Your task to perform on an android device: What's the news in theFalkland Islands? Image 0: 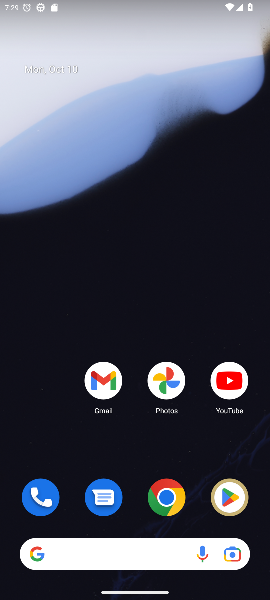
Step 0: drag from (92, 453) to (98, 186)
Your task to perform on an android device: What's the news in theFalkland Islands? Image 1: 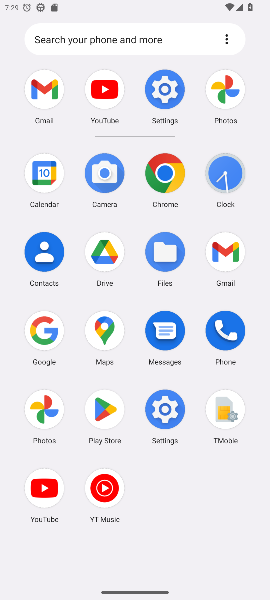
Step 1: click (46, 328)
Your task to perform on an android device: What's the news in theFalkland Islands? Image 2: 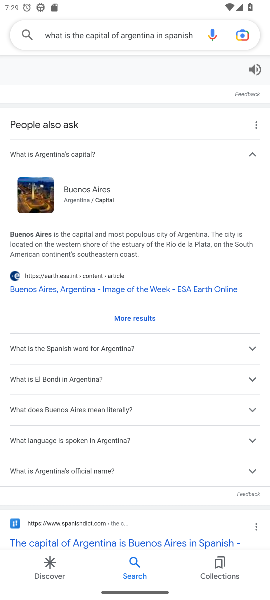
Step 2: click (116, 29)
Your task to perform on an android device: What's the news in theFalkland Islands? Image 3: 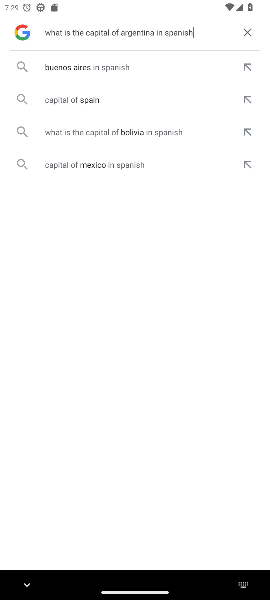
Step 3: click (250, 25)
Your task to perform on an android device: What's the news in theFalkland Islands? Image 4: 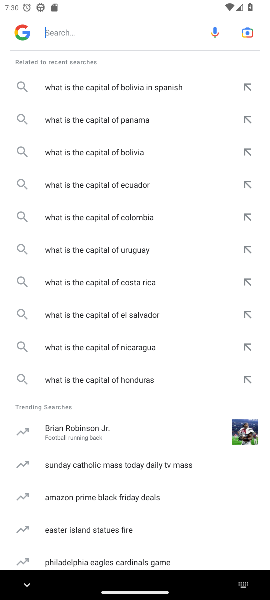
Step 4: click (88, 32)
Your task to perform on an android device: What's the news in theFalkland Islands? Image 5: 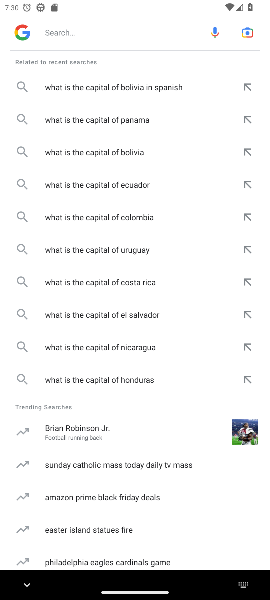
Step 5: type "What's the news in theFalkland Islands? "
Your task to perform on an android device: What's the news in theFalkland Islands? Image 6: 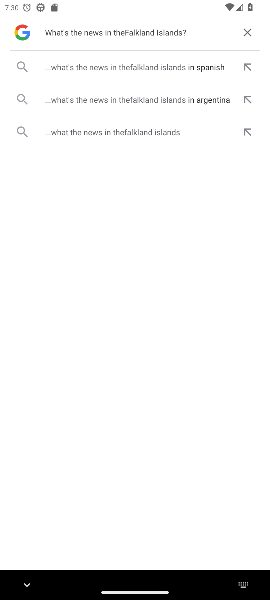
Step 6: click (57, 71)
Your task to perform on an android device: What's the news in theFalkland Islands? Image 7: 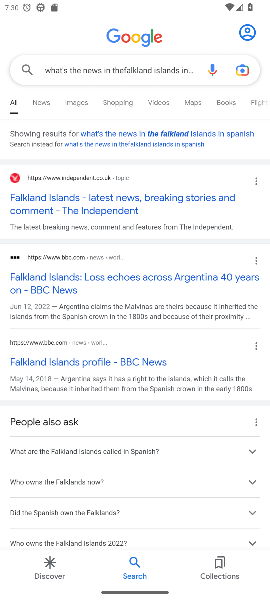
Step 7: click (50, 198)
Your task to perform on an android device: What's the news in theFalkland Islands? Image 8: 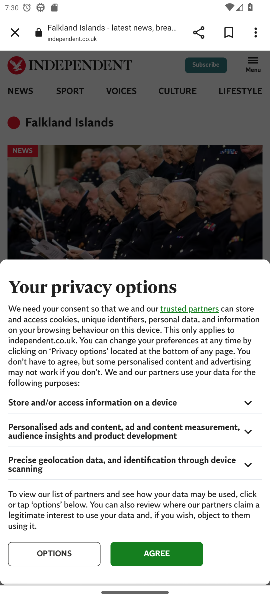
Step 8: click (116, 548)
Your task to perform on an android device: What's the news in theFalkland Islands? Image 9: 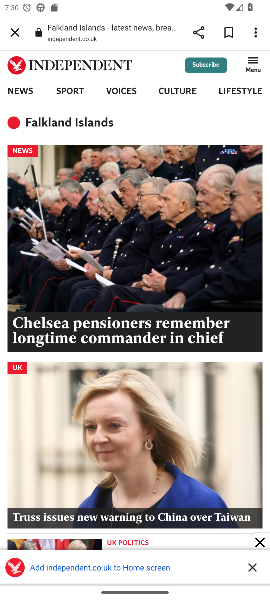
Step 9: click (128, 502)
Your task to perform on an android device: What's the news in theFalkland Islands? Image 10: 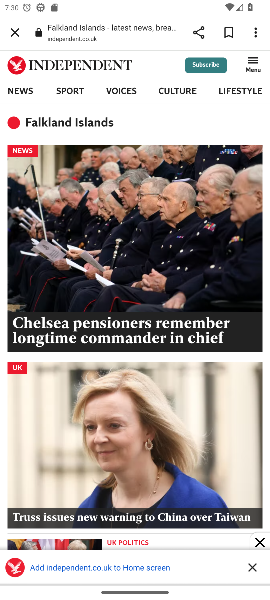
Step 10: drag from (129, 444) to (141, 231)
Your task to perform on an android device: What's the news in theFalkland Islands? Image 11: 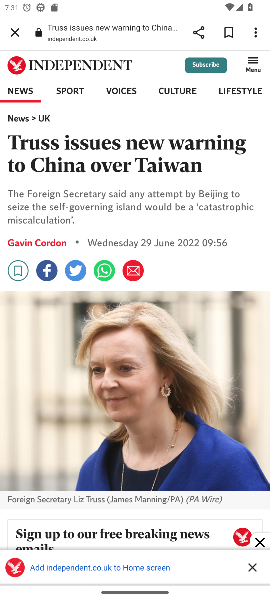
Step 11: click (261, 543)
Your task to perform on an android device: What's the news in theFalkland Islands? Image 12: 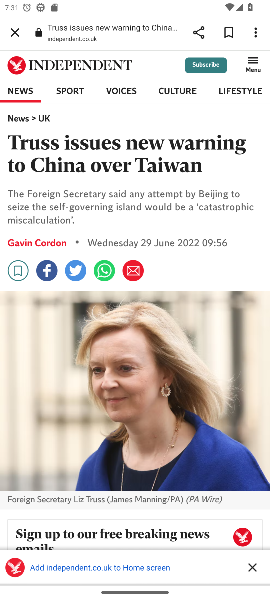
Step 12: task complete